Your task to perform on an android device: What is the news today? Image 0: 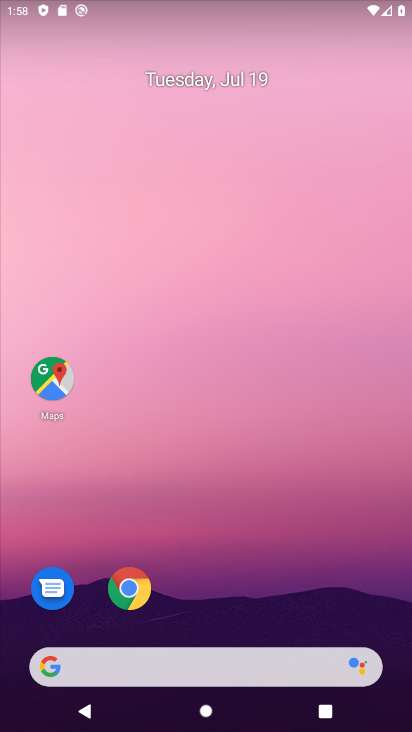
Step 0: drag from (3, 230) to (347, 234)
Your task to perform on an android device: What is the news today? Image 1: 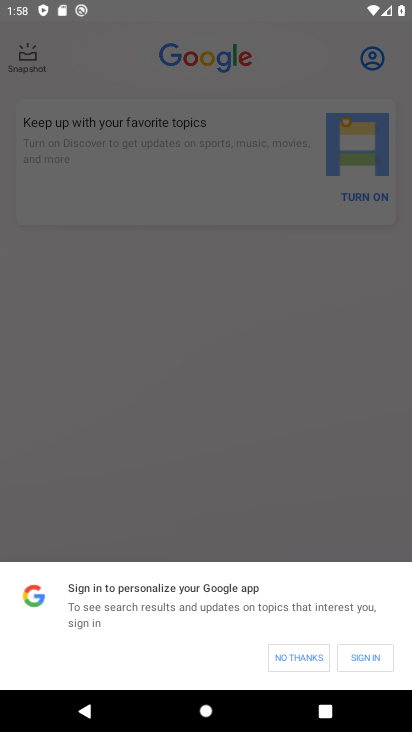
Step 1: click (282, 661)
Your task to perform on an android device: What is the news today? Image 2: 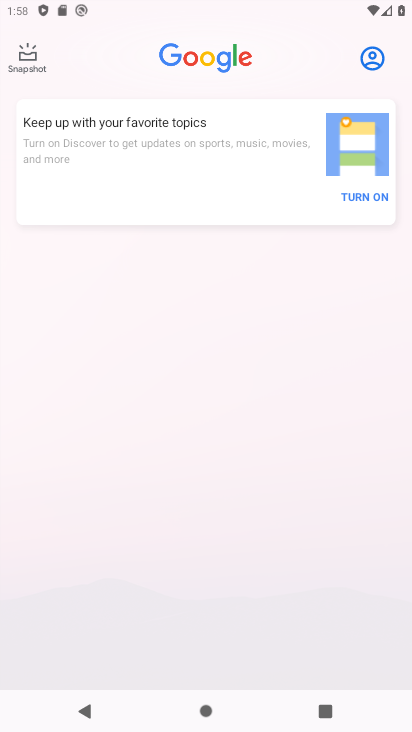
Step 2: task complete